Your task to perform on an android device: Go to settings Image 0: 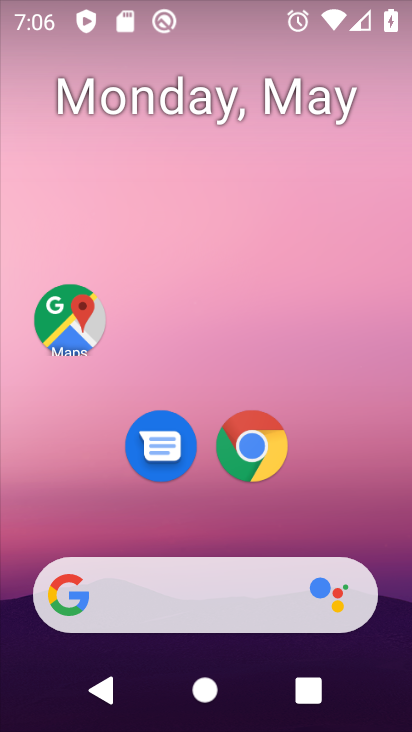
Step 0: drag from (357, 505) to (214, 108)
Your task to perform on an android device: Go to settings Image 1: 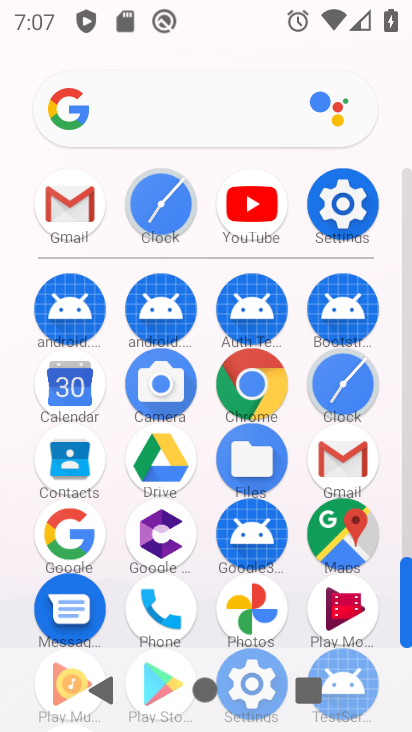
Step 1: click (334, 198)
Your task to perform on an android device: Go to settings Image 2: 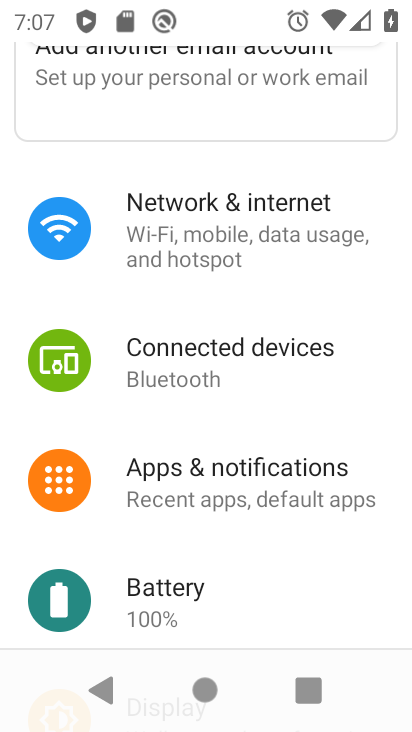
Step 2: task complete